Your task to perform on an android device: Go to eBay Image 0: 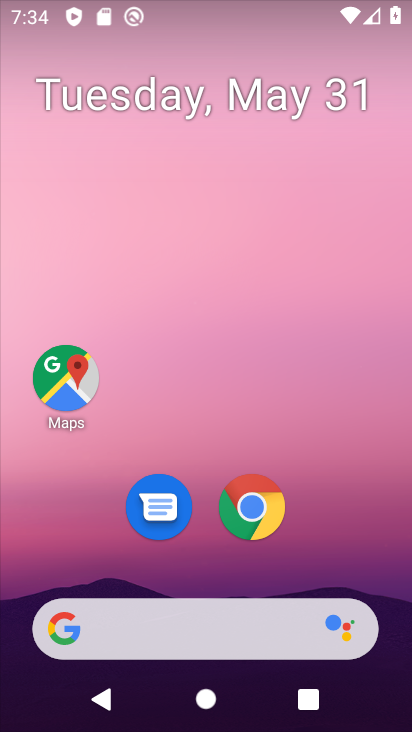
Step 0: click (259, 504)
Your task to perform on an android device: Go to eBay Image 1: 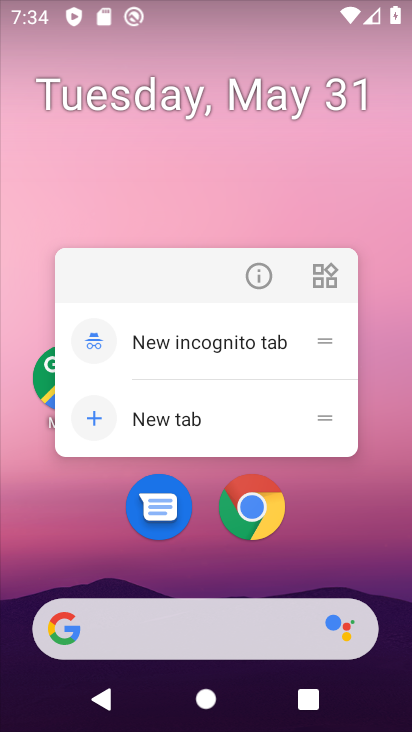
Step 1: click (259, 504)
Your task to perform on an android device: Go to eBay Image 2: 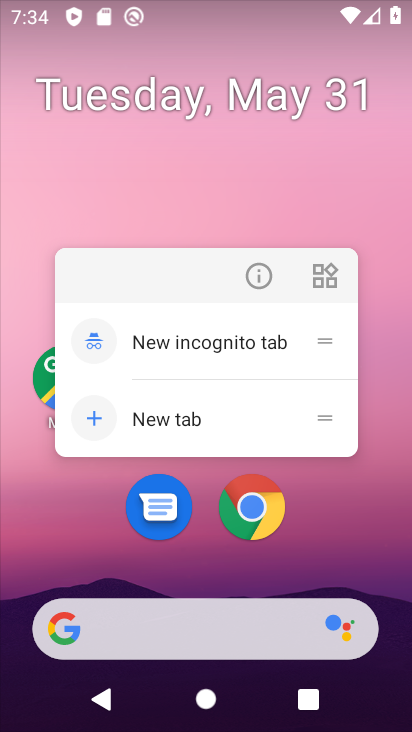
Step 2: click (317, 557)
Your task to perform on an android device: Go to eBay Image 3: 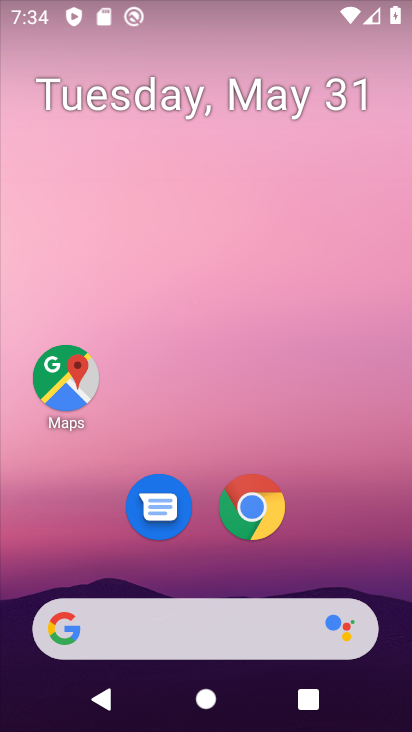
Step 3: drag from (330, 559) to (355, 143)
Your task to perform on an android device: Go to eBay Image 4: 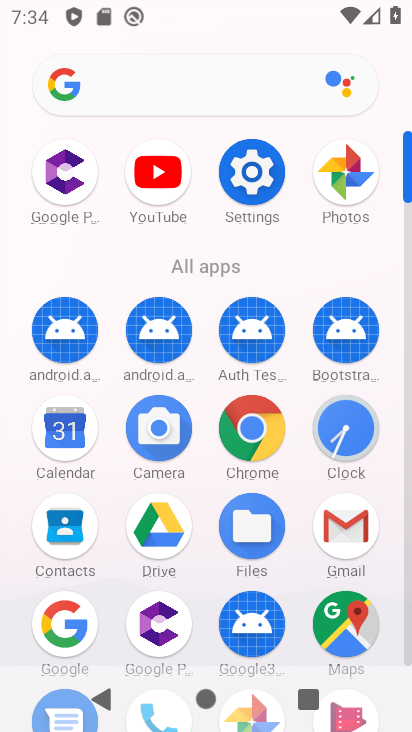
Step 4: click (253, 426)
Your task to perform on an android device: Go to eBay Image 5: 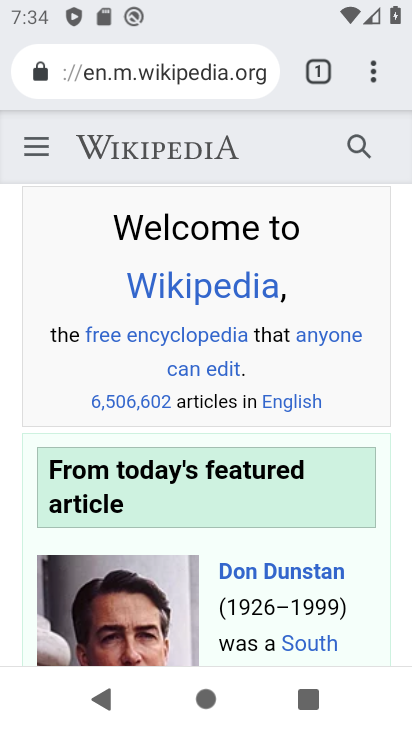
Step 5: click (200, 67)
Your task to perform on an android device: Go to eBay Image 6: 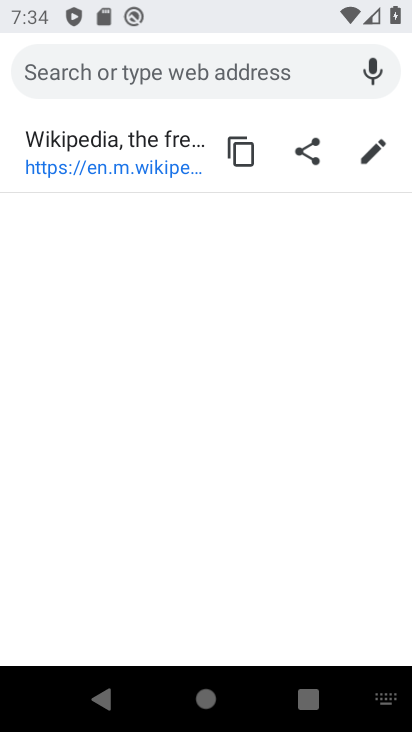
Step 6: type "ebay"
Your task to perform on an android device: Go to eBay Image 7: 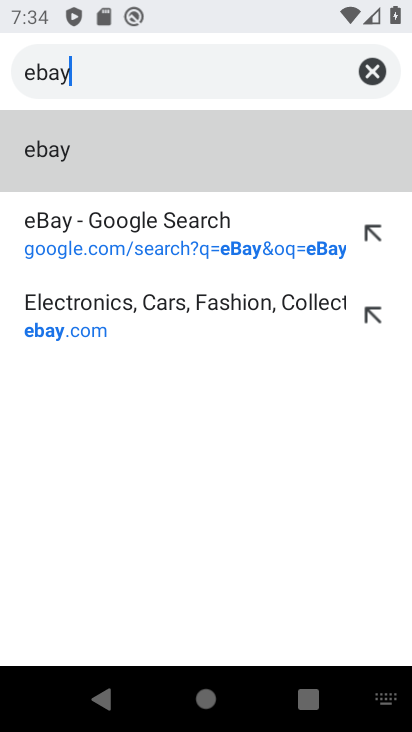
Step 7: click (75, 333)
Your task to perform on an android device: Go to eBay Image 8: 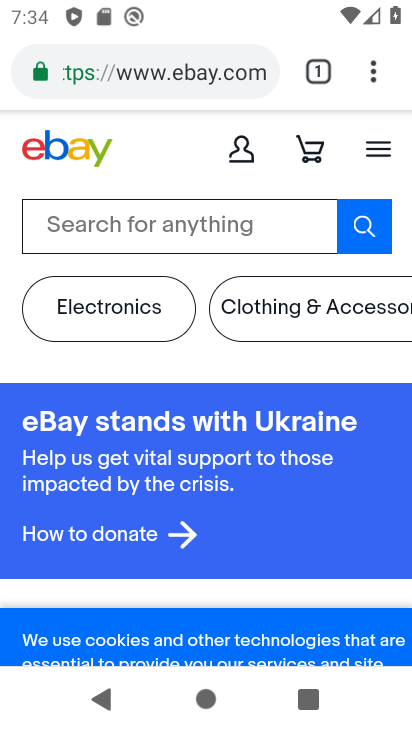
Step 8: task complete